Your task to perform on an android device: Go to location settings Image 0: 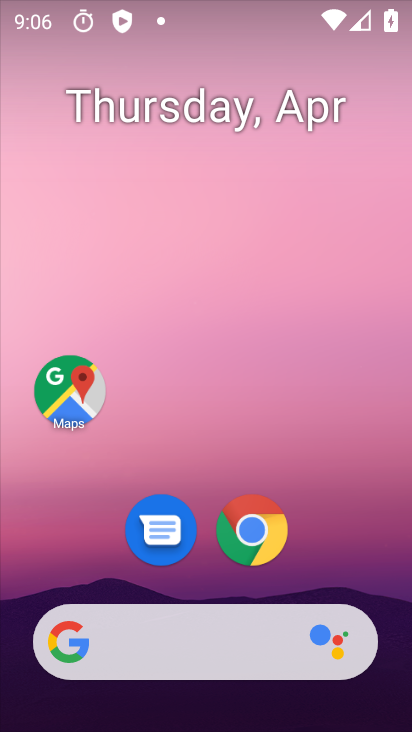
Step 0: drag from (316, 564) to (343, 68)
Your task to perform on an android device: Go to location settings Image 1: 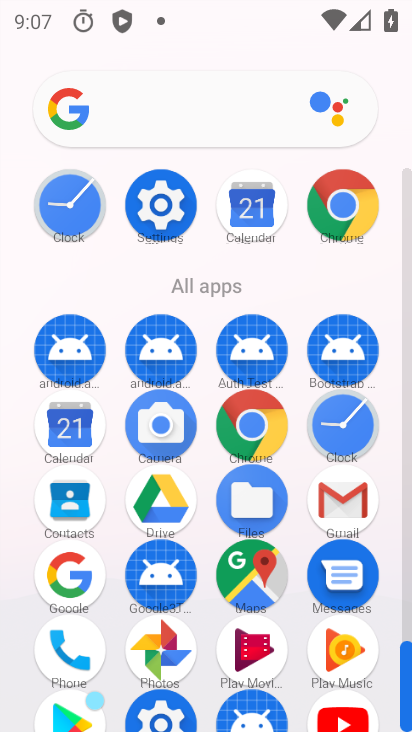
Step 1: click (157, 208)
Your task to perform on an android device: Go to location settings Image 2: 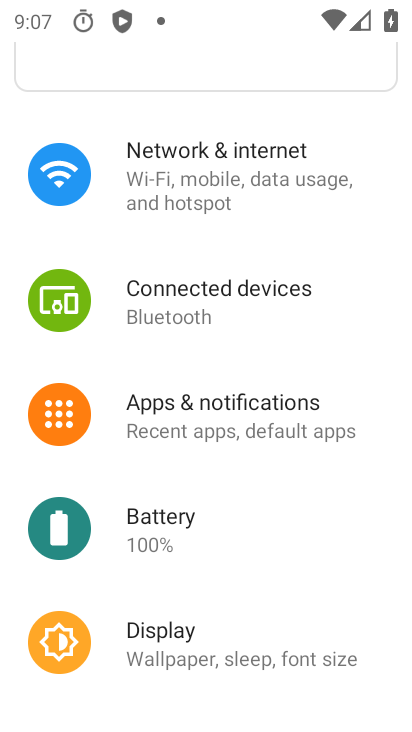
Step 2: drag from (332, 543) to (335, 171)
Your task to perform on an android device: Go to location settings Image 3: 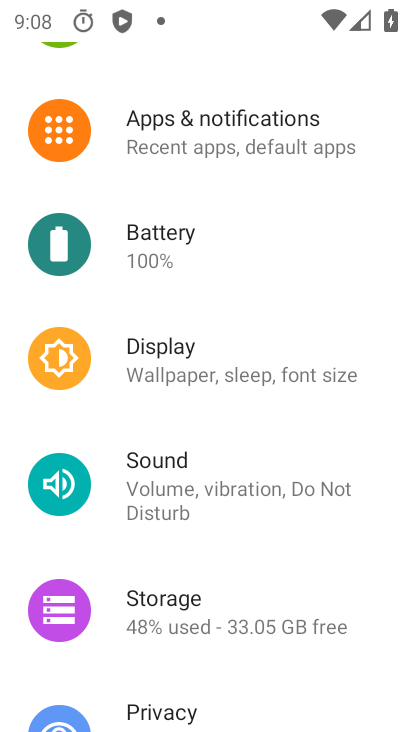
Step 3: drag from (306, 636) to (310, 205)
Your task to perform on an android device: Go to location settings Image 4: 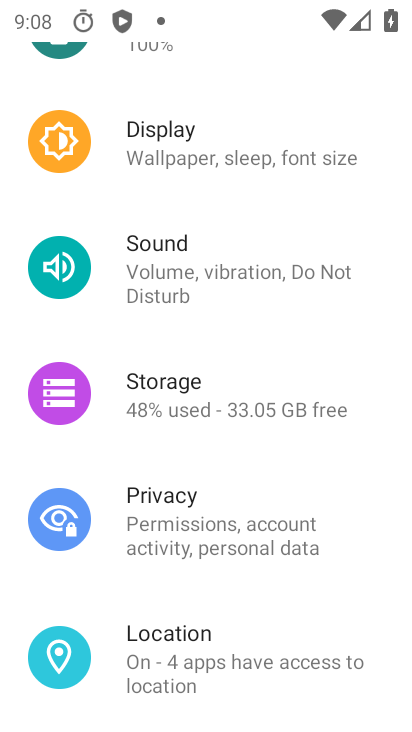
Step 4: click (186, 653)
Your task to perform on an android device: Go to location settings Image 5: 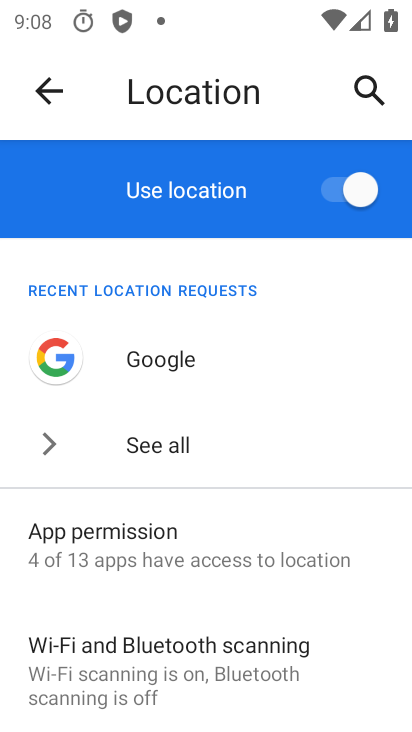
Step 5: task complete